Your task to perform on an android device: delete location history Image 0: 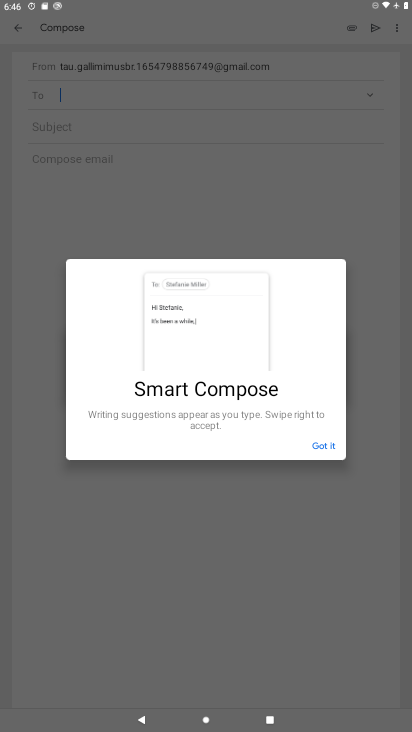
Step 0: press home button
Your task to perform on an android device: delete location history Image 1: 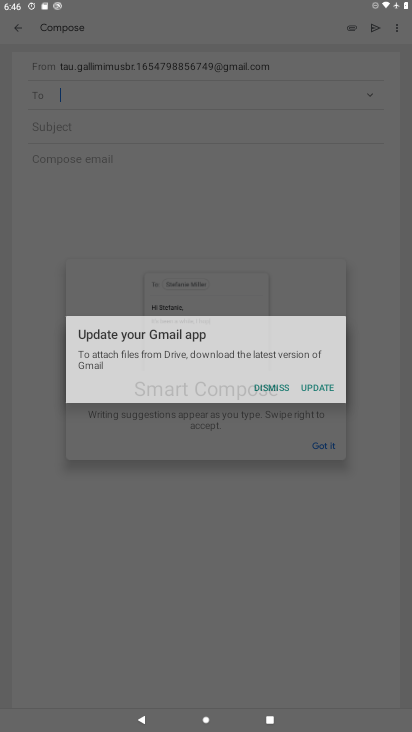
Step 1: drag from (386, 666) to (205, 41)
Your task to perform on an android device: delete location history Image 2: 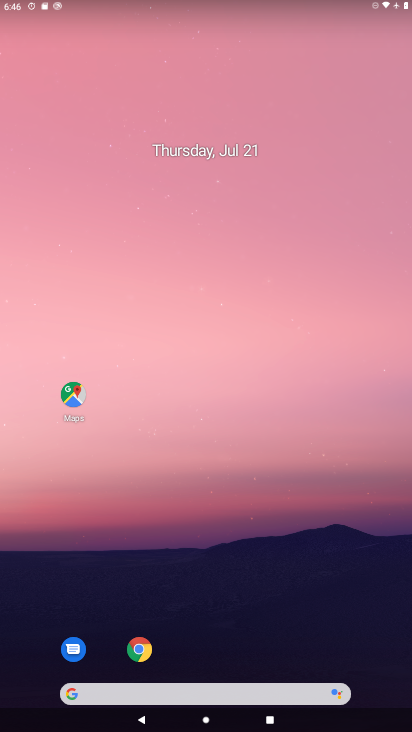
Step 2: drag from (310, 579) to (241, 26)
Your task to perform on an android device: delete location history Image 3: 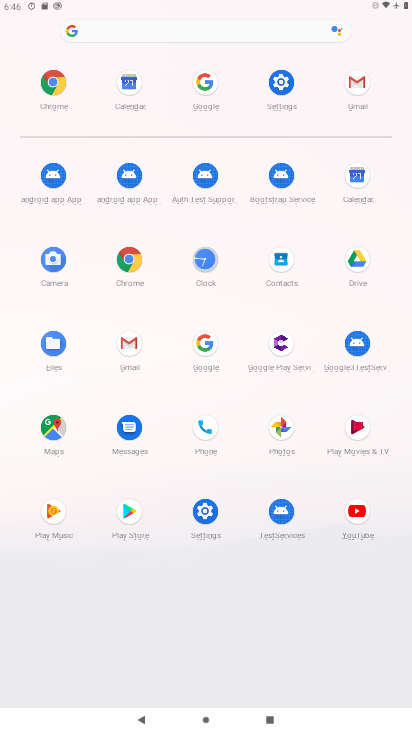
Step 3: click (279, 86)
Your task to perform on an android device: delete location history Image 4: 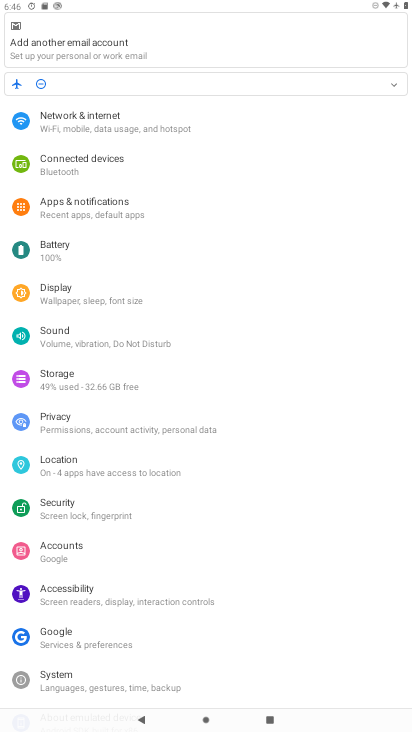
Step 4: click (49, 468)
Your task to perform on an android device: delete location history Image 5: 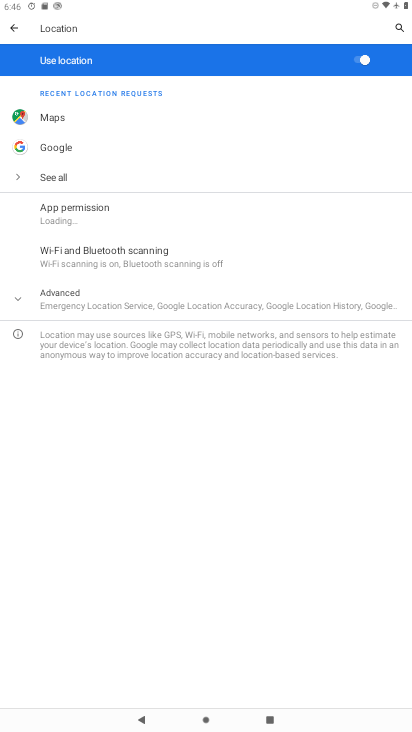
Step 5: click (55, 293)
Your task to perform on an android device: delete location history Image 6: 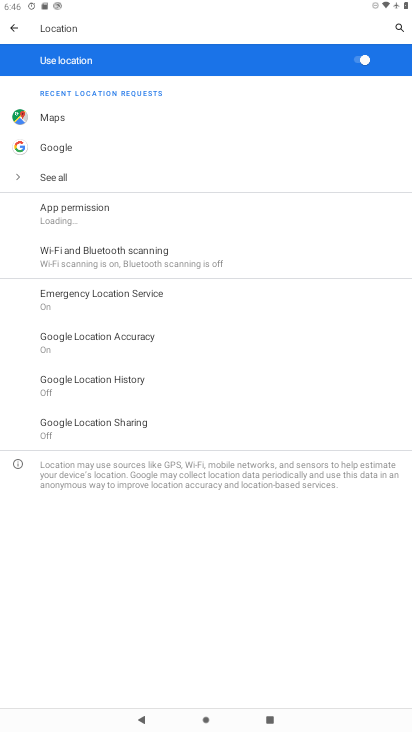
Step 6: click (60, 396)
Your task to perform on an android device: delete location history Image 7: 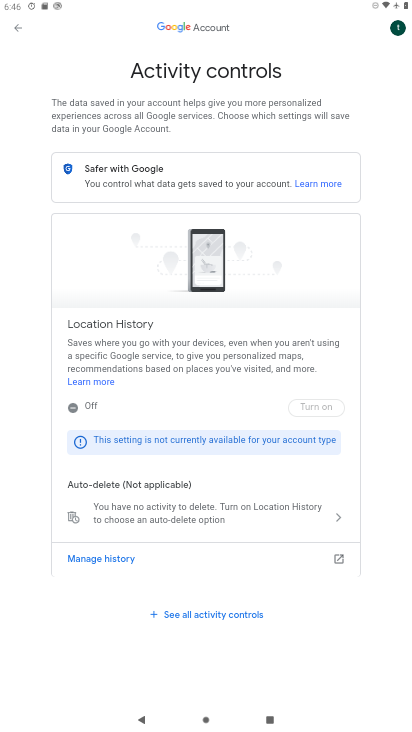
Step 7: click (164, 486)
Your task to perform on an android device: delete location history Image 8: 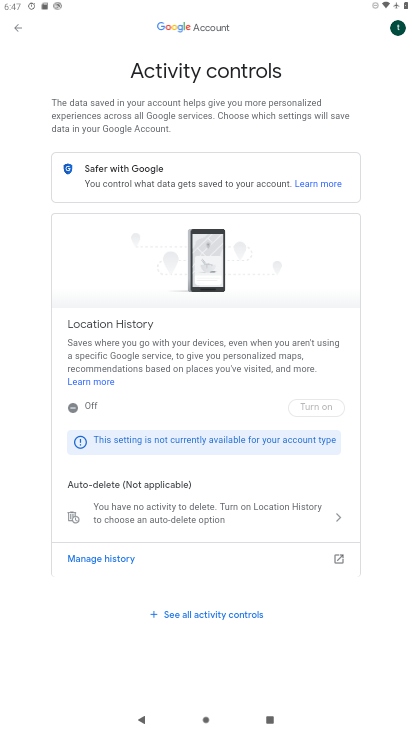
Step 8: click (170, 513)
Your task to perform on an android device: delete location history Image 9: 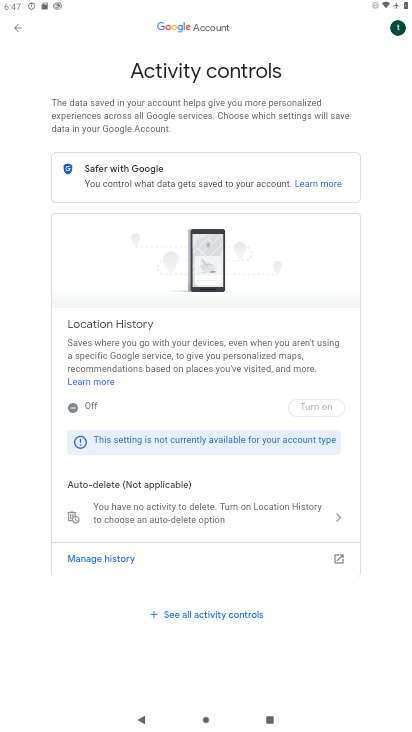
Step 9: click (337, 519)
Your task to perform on an android device: delete location history Image 10: 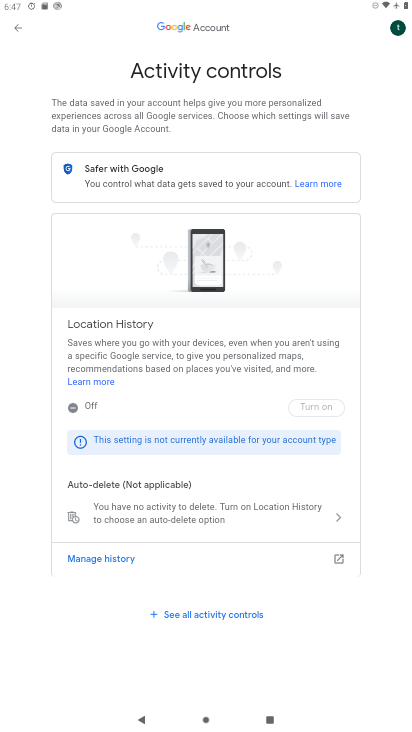
Step 10: click (216, 516)
Your task to perform on an android device: delete location history Image 11: 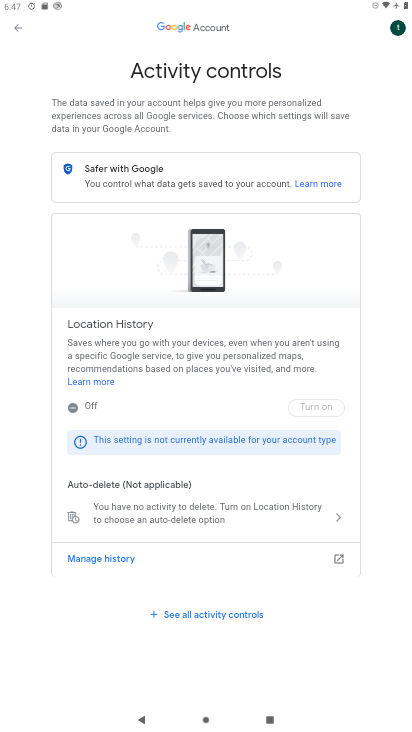
Step 11: task complete